Your task to perform on an android device: Is it going to rain today? Image 0: 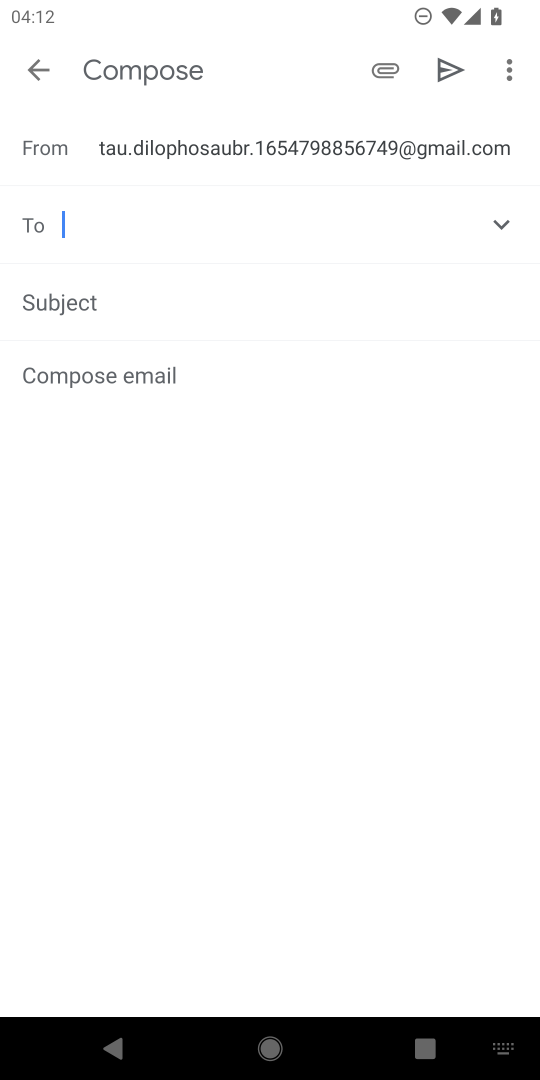
Step 0: press home button
Your task to perform on an android device: Is it going to rain today? Image 1: 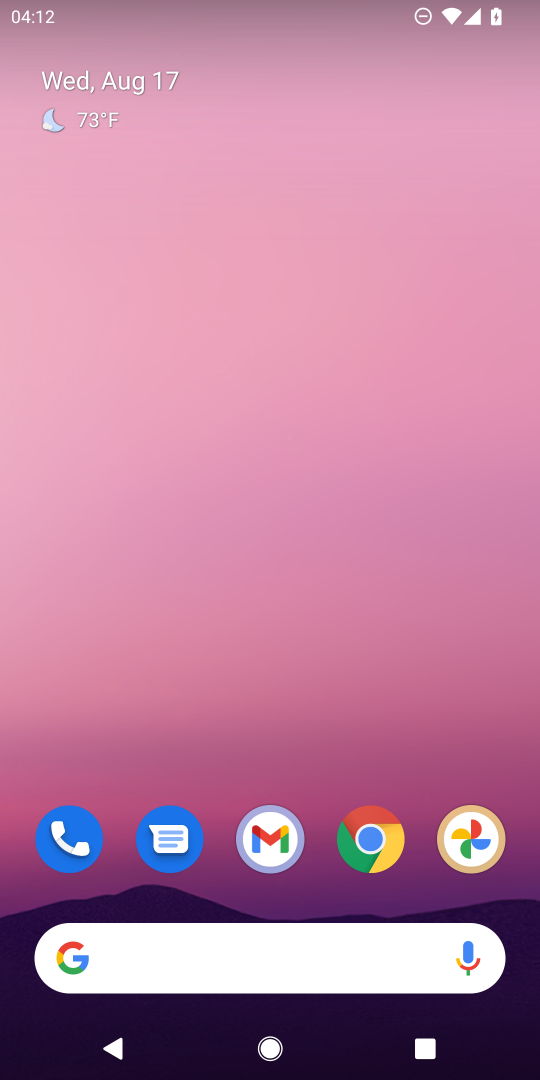
Step 1: click (51, 115)
Your task to perform on an android device: Is it going to rain today? Image 2: 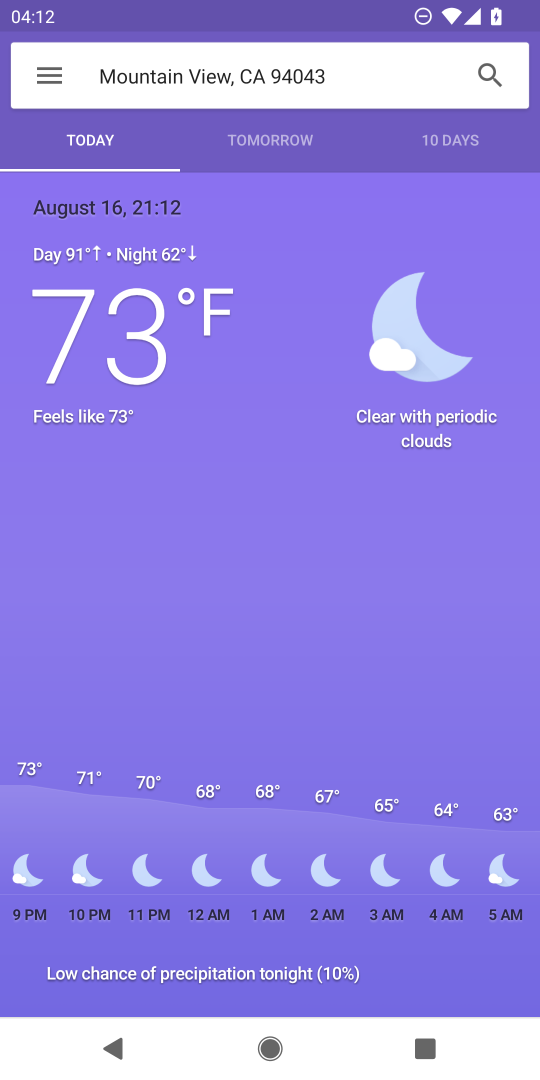
Step 2: task complete